Your task to perform on an android device: turn on airplane mode Image 0: 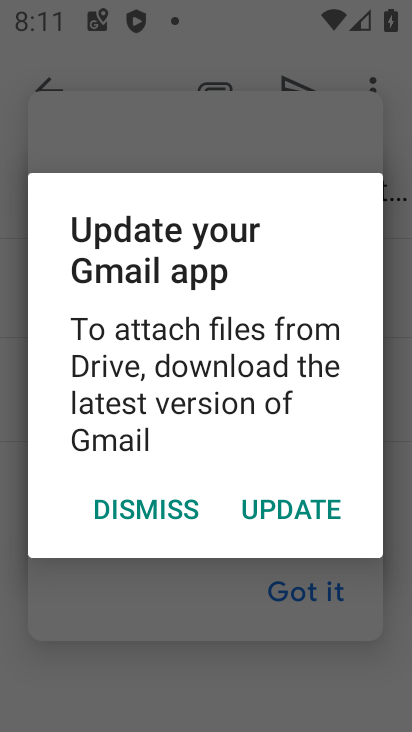
Step 0: press home button
Your task to perform on an android device: turn on airplane mode Image 1: 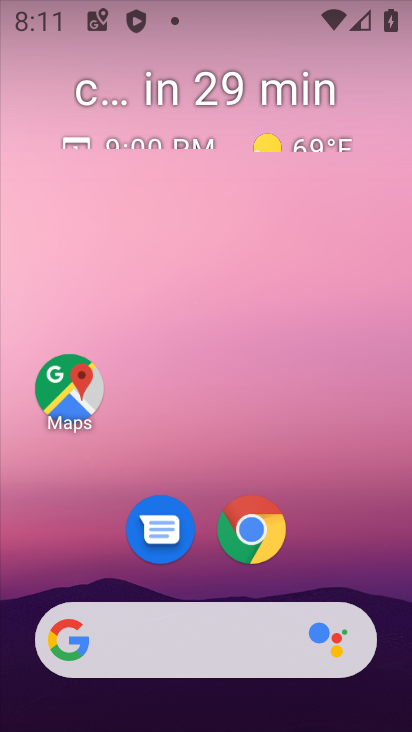
Step 1: drag from (371, 511) to (402, 192)
Your task to perform on an android device: turn on airplane mode Image 2: 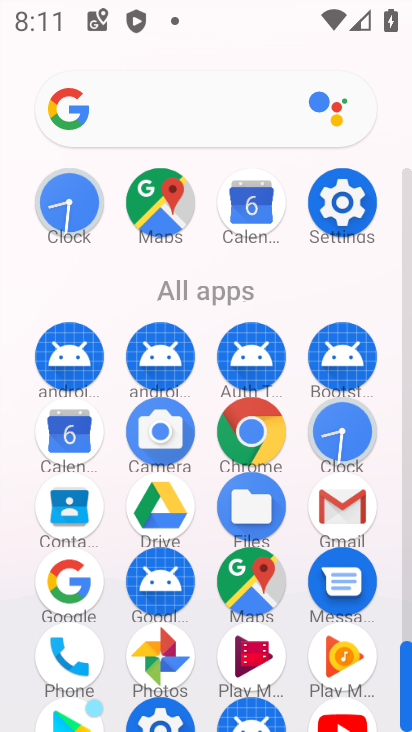
Step 2: click (342, 202)
Your task to perform on an android device: turn on airplane mode Image 3: 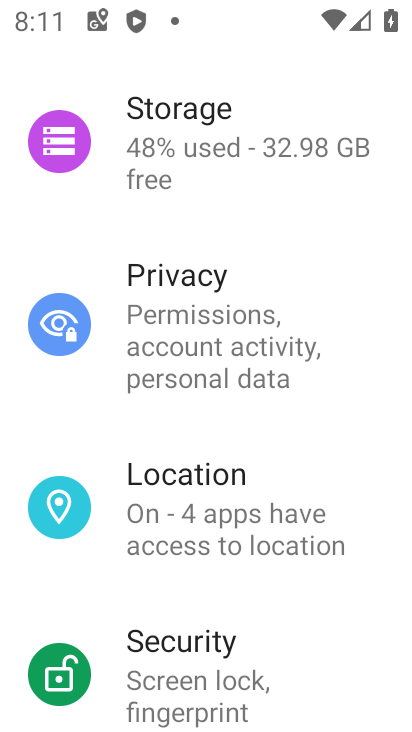
Step 3: drag from (283, 167) to (271, 722)
Your task to perform on an android device: turn on airplane mode Image 4: 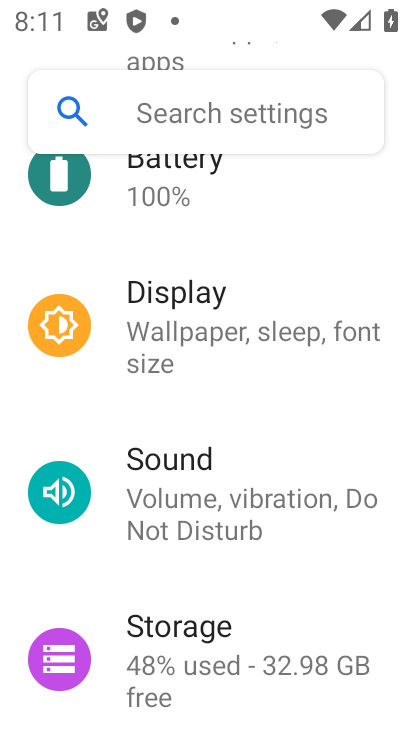
Step 4: drag from (281, 225) to (309, 691)
Your task to perform on an android device: turn on airplane mode Image 5: 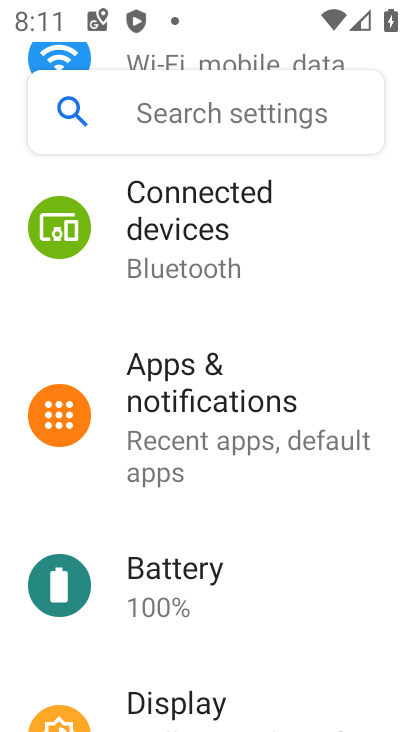
Step 5: drag from (254, 221) to (319, 700)
Your task to perform on an android device: turn on airplane mode Image 6: 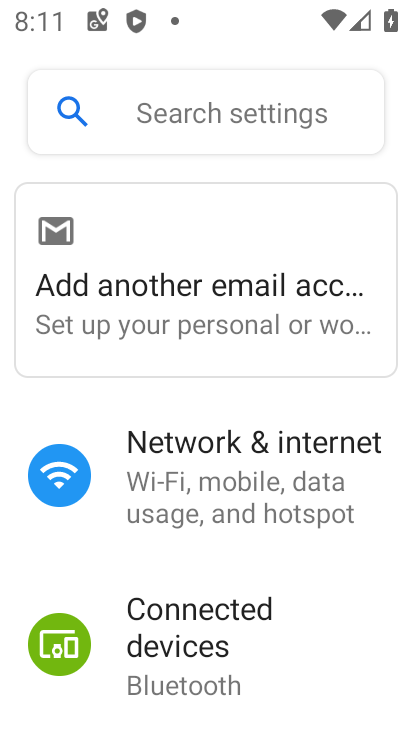
Step 6: click (223, 474)
Your task to perform on an android device: turn on airplane mode Image 7: 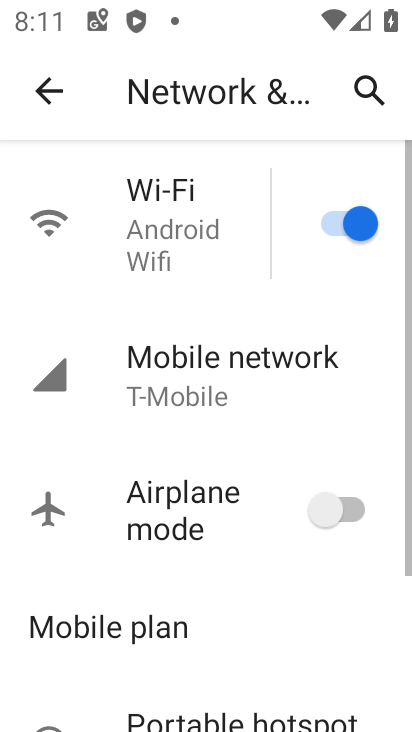
Step 7: click (338, 511)
Your task to perform on an android device: turn on airplane mode Image 8: 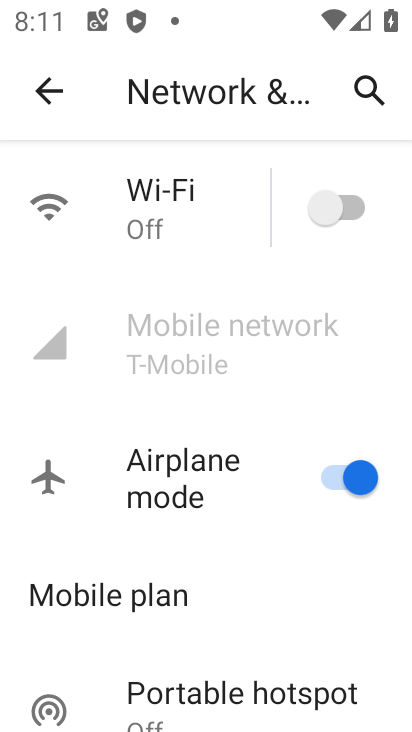
Step 8: task complete